Your task to perform on an android device: Show me the alarms in the clock app Image 0: 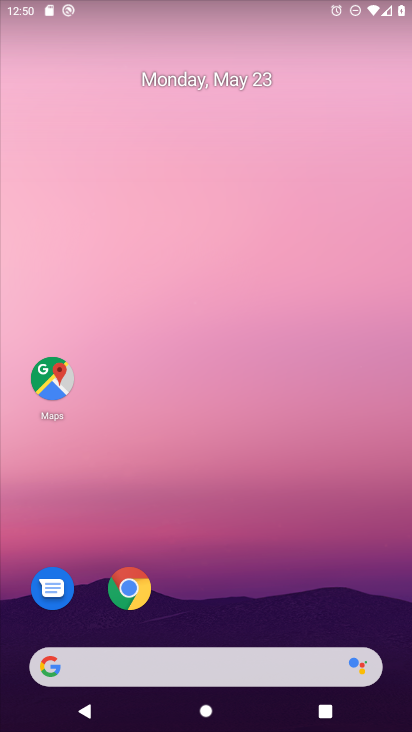
Step 0: drag from (283, 627) to (275, 354)
Your task to perform on an android device: Show me the alarms in the clock app Image 1: 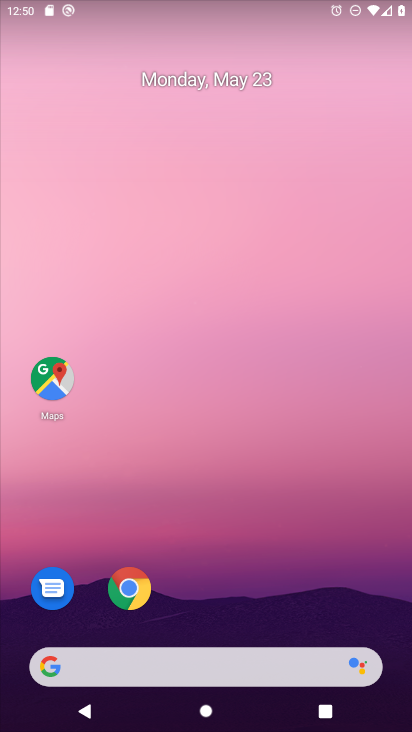
Step 1: drag from (220, 694) to (223, 189)
Your task to perform on an android device: Show me the alarms in the clock app Image 2: 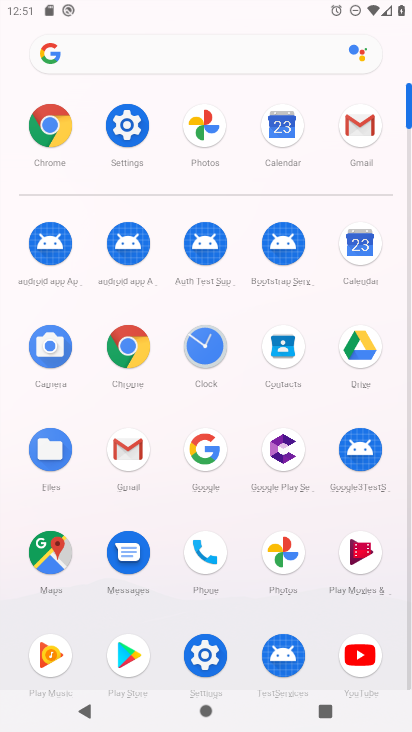
Step 2: click (204, 351)
Your task to perform on an android device: Show me the alarms in the clock app Image 3: 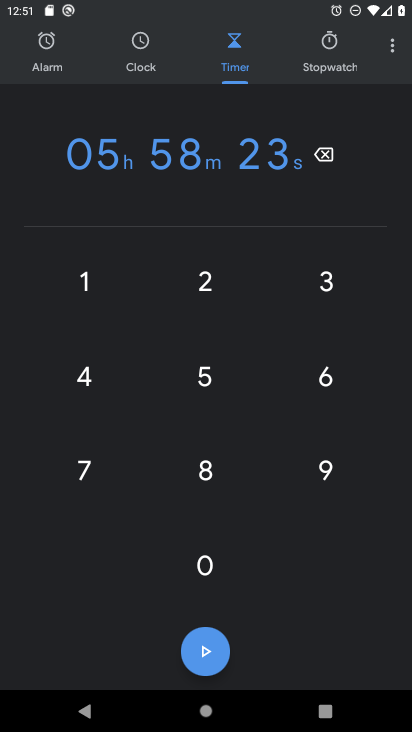
Step 3: click (66, 54)
Your task to perform on an android device: Show me the alarms in the clock app Image 4: 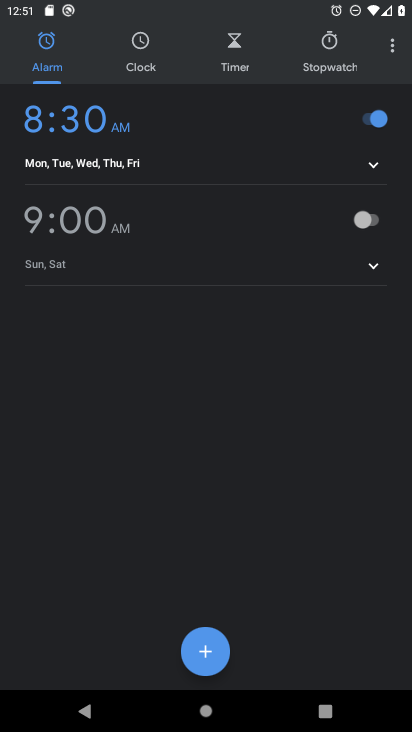
Step 4: task complete